Your task to perform on an android device: Search for Italian restaurants on Maps Image 0: 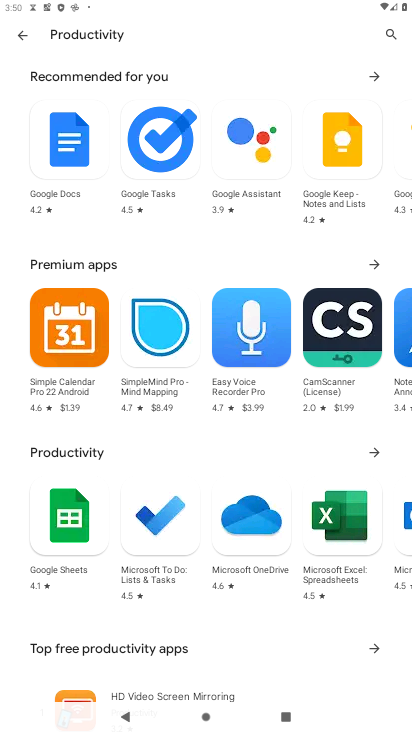
Step 0: press home button
Your task to perform on an android device: Search for Italian restaurants on Maps Image 1: 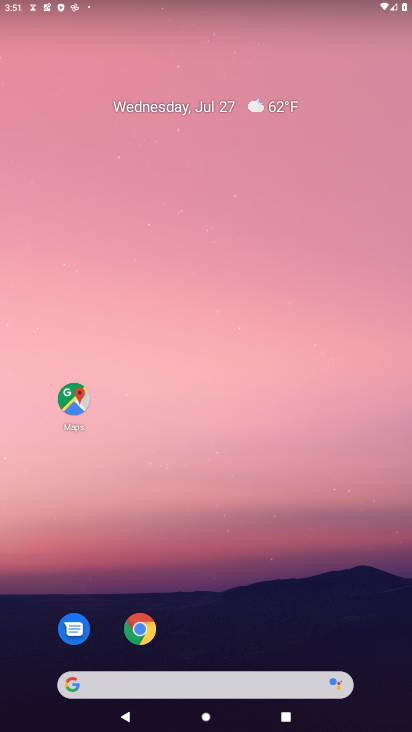
Step 1: click (75, 399)
Your task to perform on an android device: Search for Italian restaurants on Maps Image 2: 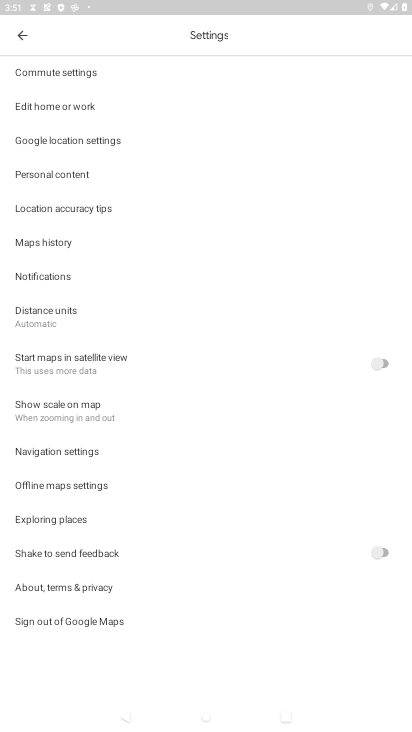
Step 2: press back button
Your task to perform on an android device: Search for Italian restaurants on Maps Image 3: 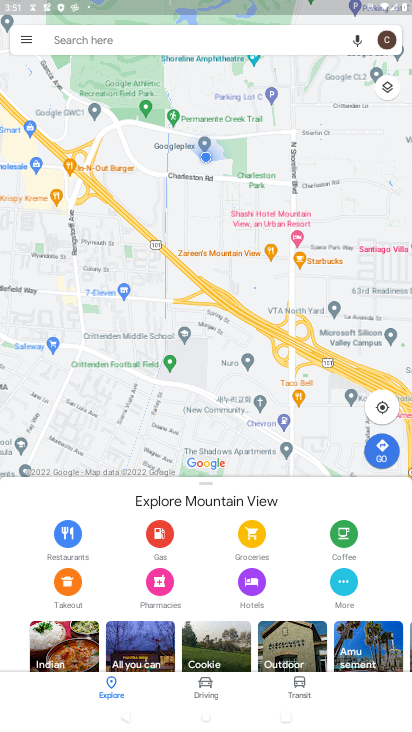
Step 3: click (183, 43)
Your task to perform on an android device: Search for Italian restaurants on Maps Image 4: 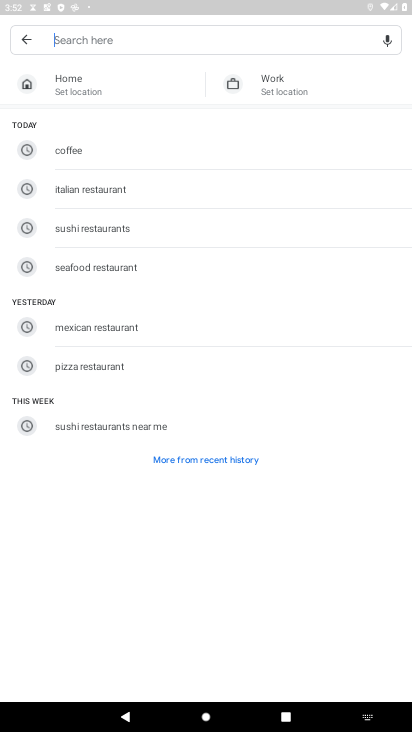
Step 4: type "Italian restaurants"
Your task to perform on an android device: Search for Italian restaurants on Maps Image 5: 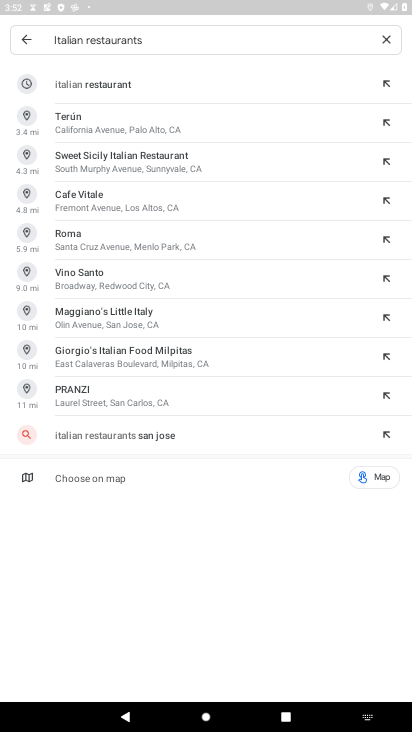
Step 5: click (112, 87)
Your task to perform on an android device: Search for Italian restaurants on Maps Image 6: 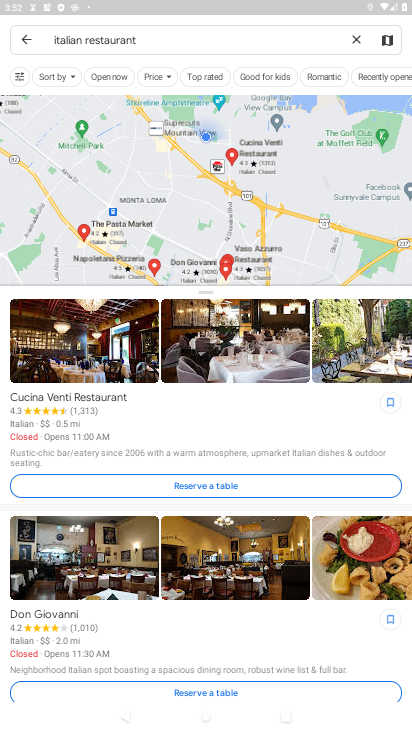
Step 6: task complete